Your task to perform on an android device: turn on javascript in the chrome app Image 0: 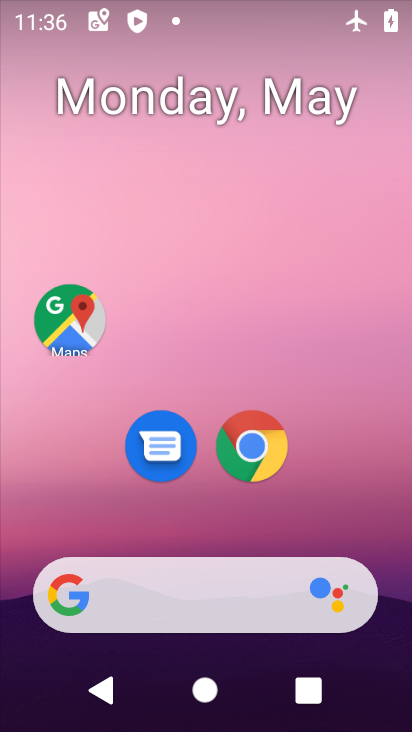
Step 0: click (253, 448)
Your task to perform on an android device: turn on javascript in the chrome app Image 1: 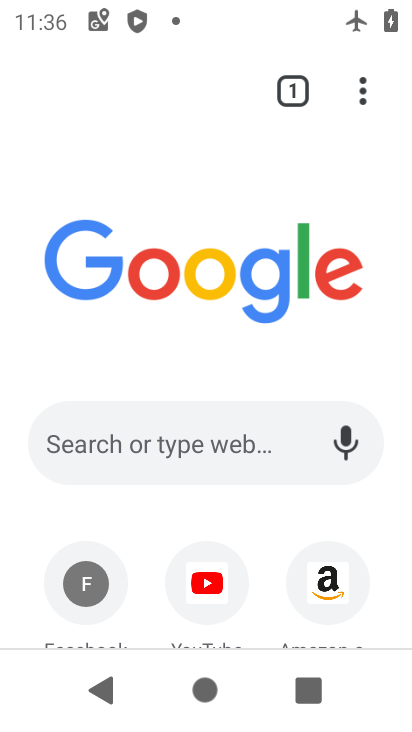
Step 1: click (365, 91)
Your task to perform on an android device: turn on javascript in the chrome app Image 2: 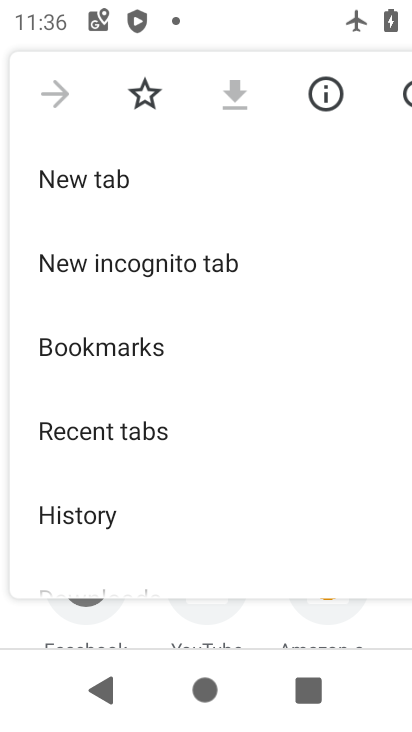
Step 2: drag from (145, 477) to (235, 370)
Your task to perform on an android device: turn on javascript in the chrome app Image 3: 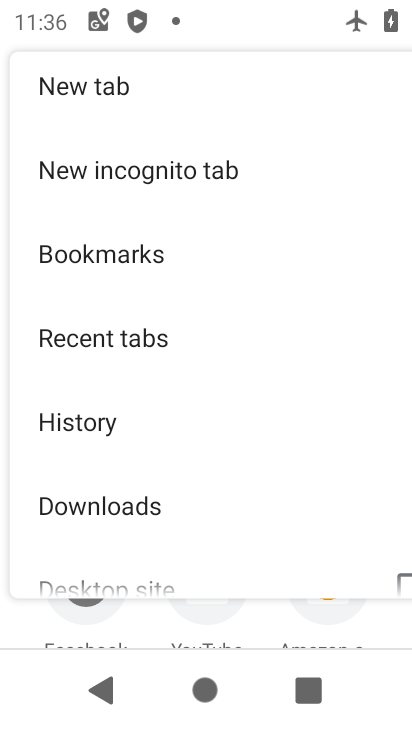
Step 3: drag from (155, 464) to (227, 363)
Your task to perform on an android device: turn on javascript in the chrome app Image 4: 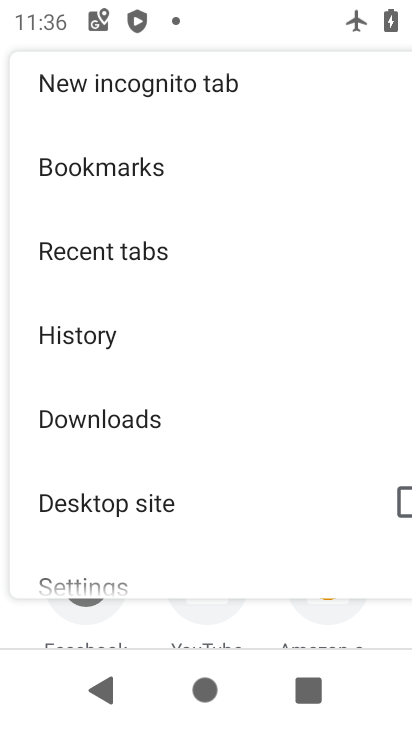
Step 4: drag from (134, 468) to (169, 340)
Your task to perform on an android device: turn on javascript in the chrome app Image 5: 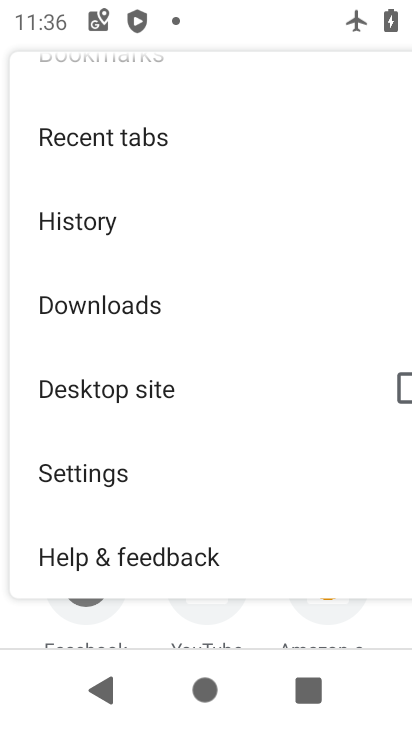
Step 5: click (99, 478)
Your task to perform on an android device: turn on javascript in the chrome app Image 6: 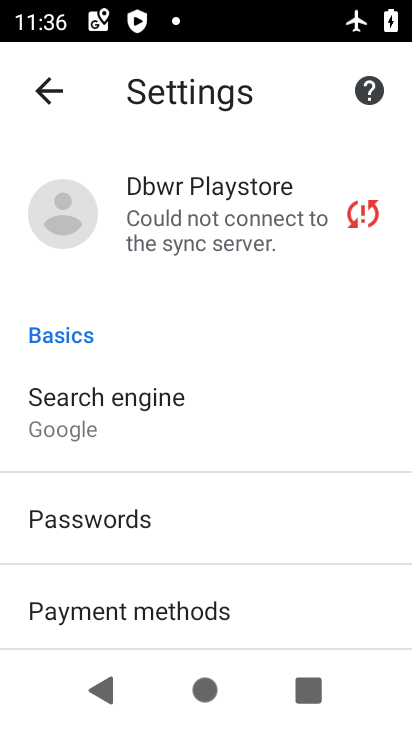
Step 6: drag from (123, 493) to (173, 420)
Your task to perform on an android device: turn on javascript in the chrome app Image 7: 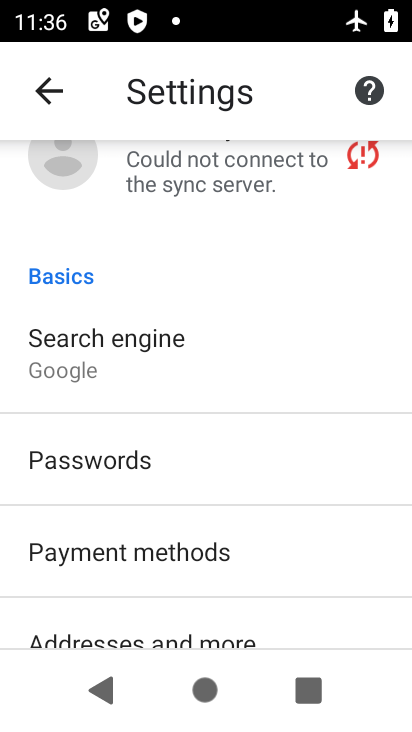
Step 7: drag from (124, 521) to (172, 442)
Your task to perform on an android device: turn on javascript in the chrome app Image 8: 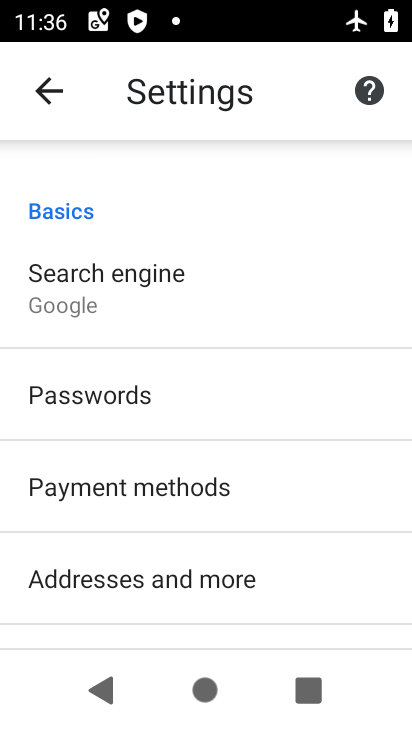
Step 8: drag from (115, 532) to (156, 440)
Your task to perform on an android device: turn on javascript in the chrome app Image 9: 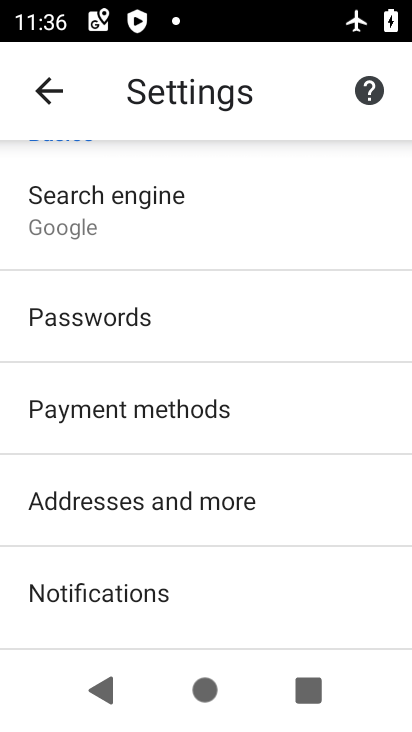
Step 9: drag from (118, 479) to (190, 389)
Your task to perform on an android device: turn on javascript in the chrome app Image 10: 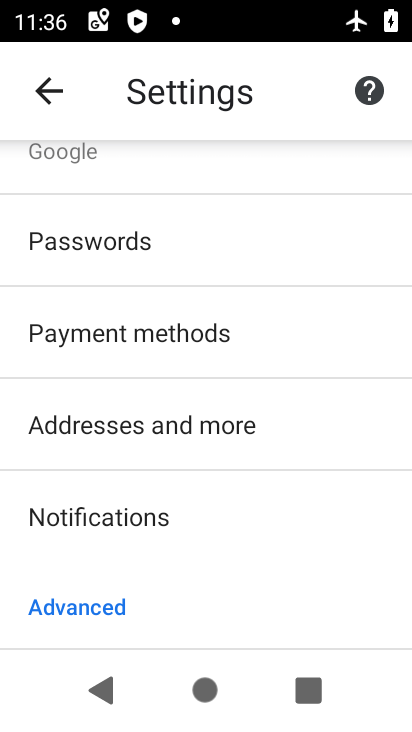
Step 10: drag from (134, 485) to (219, 382)
Your task to perform on an android device: turn on javascript in the chrome app Image 11: 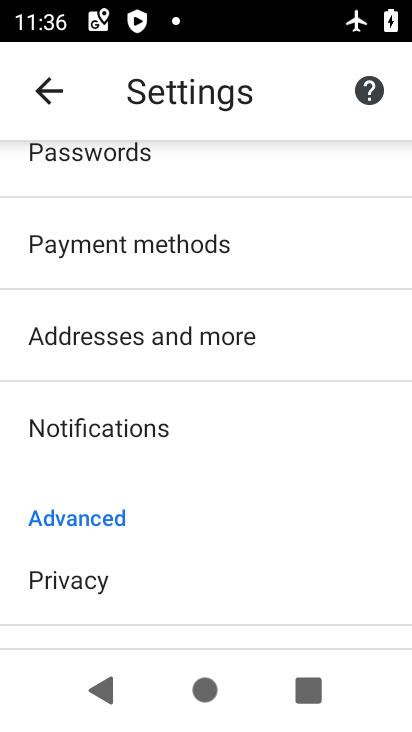
Step 11: drag from (132, 458) to (181, 365)
Your task to perform on an android device: turn on javascript in the chrome app Image 12: 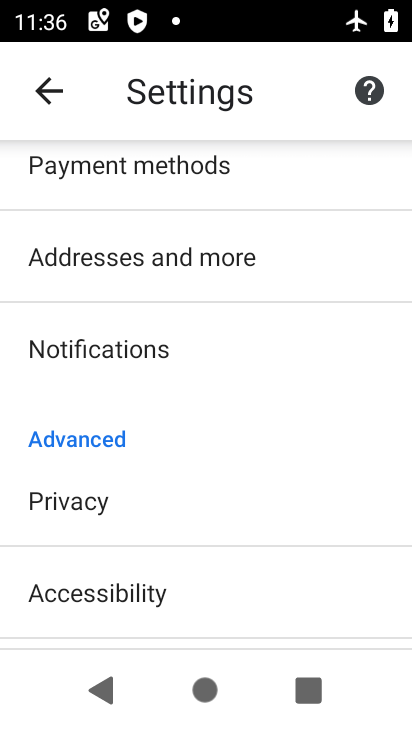
Step 12: drag from (129, 474) to (177, 378)
Your task to perform on an android device: turn on javascript in the chrome app Image 13: 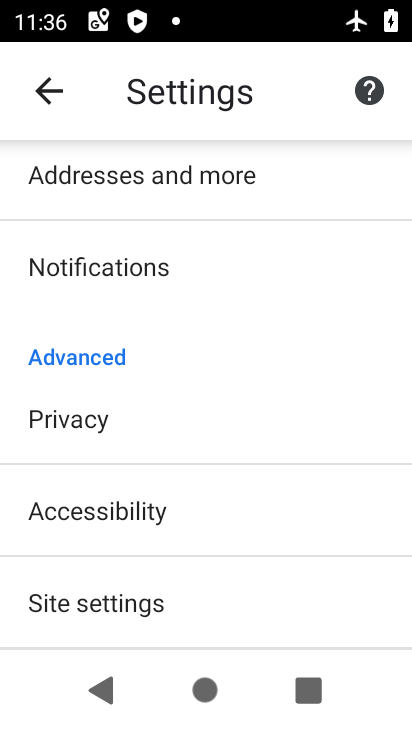
Step 13: drag from (131, 483) to (180, 376)
Your task to perform on an android device: turn on javascript in the chrome app Image 14: 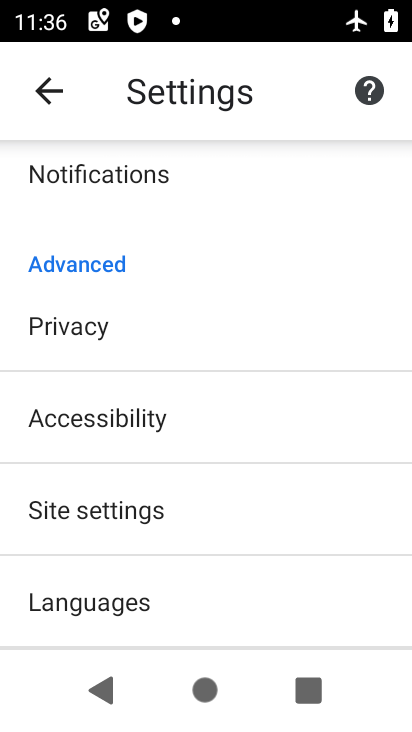
Step 14: drag from (127, 449) to (155, 392)
Your task to perform on an android device: turn on javascript in the chrome app Image 15: 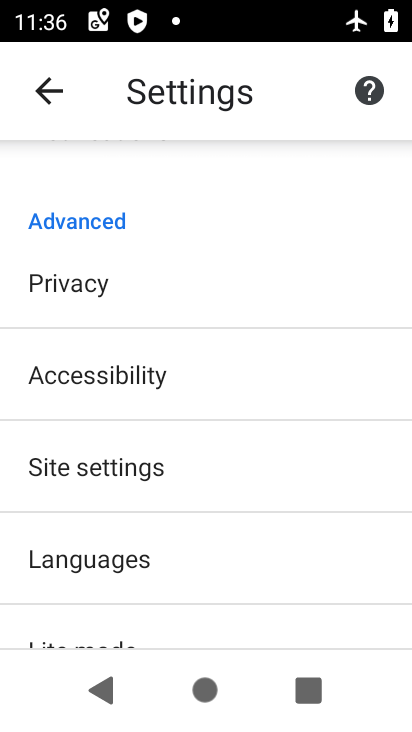
Step 15: click (122, 470)
Your task to perform on an android device: turn on javascript in the chrome app Image 16: 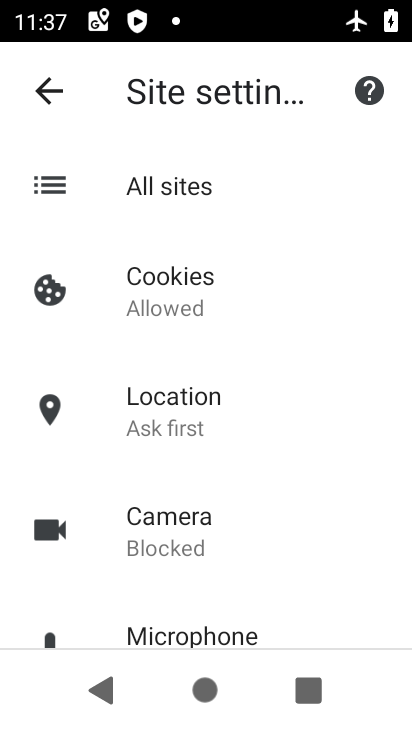
Step 16: drag from (146, 502) to (179, 441)
Your task to perform on an android device: turn on javascript in the chrome app Image 17: 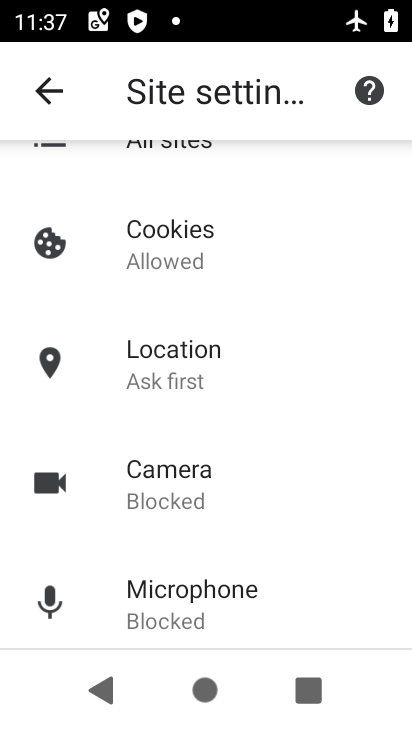
Step 17: drag from (146, 538) to (182, 468)
Your task to perform on an android device: turn on javascript in the chrome app Image 18: 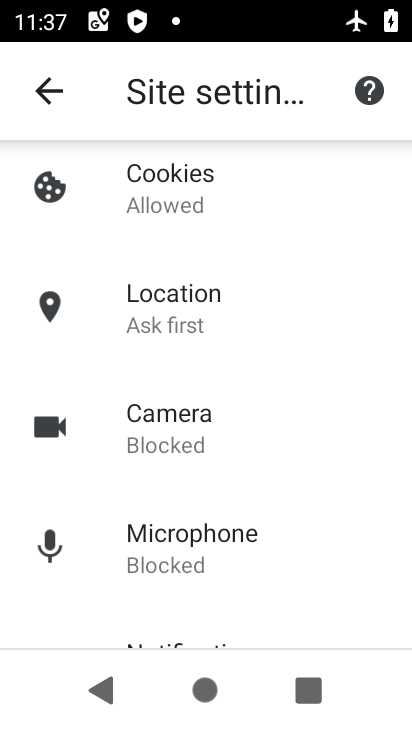
Step 18: drag from (201, 508) to (251, 429)
Your task to perform on an android device: turn on javascript in the chrome app Image 19: 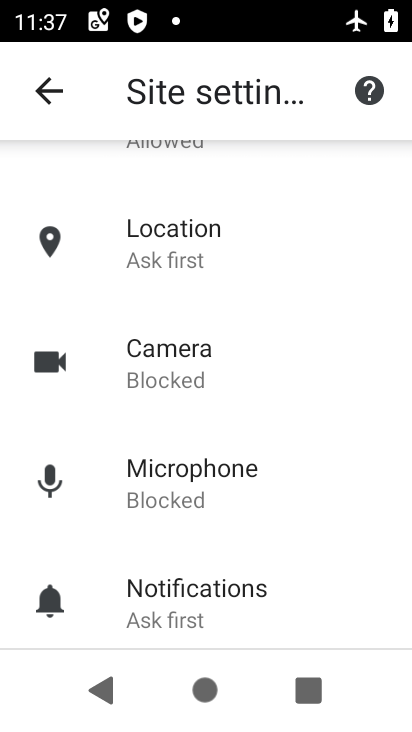
Step 19: drag from (182, 534) to (228, 452)
Your task to perform on an android device: turn on javascript in the chrome app Image 20: 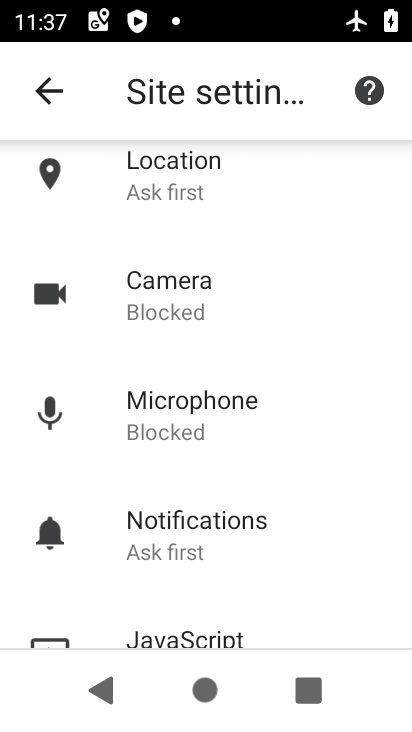
Step 20: drag from (194, 477) to (262, 378)
Your task to perform on an android device: turn on javascript in the chrome app Image 21: 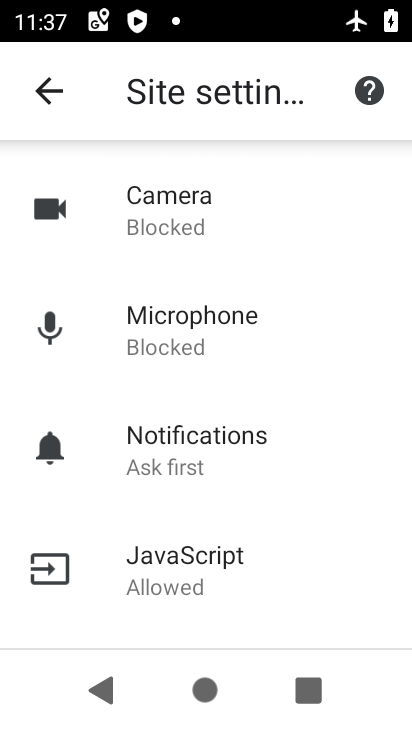
Step 21: click (182, 566)
Your task to perform on an android device: turn on javascript in the chrome app Image 22: 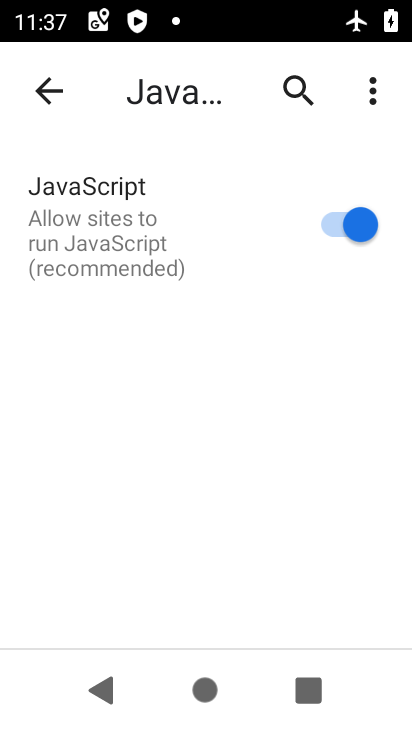
Step 22: task complete